Your task to perform on an android device: Check the weather Image 0: 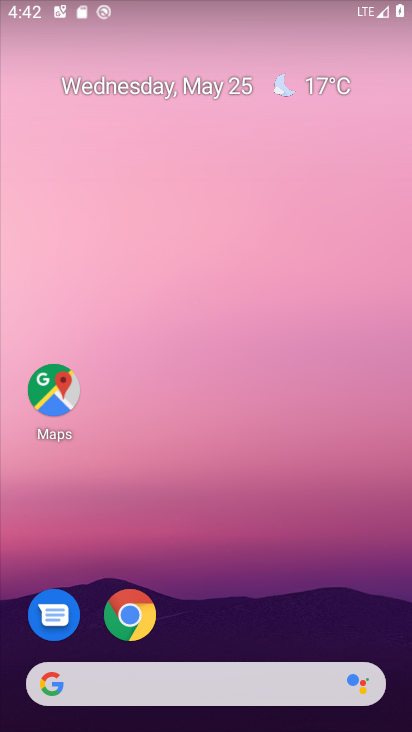
Step 0: click (326, 82)
Your task to perform on an android device: Check the weather Image 1: 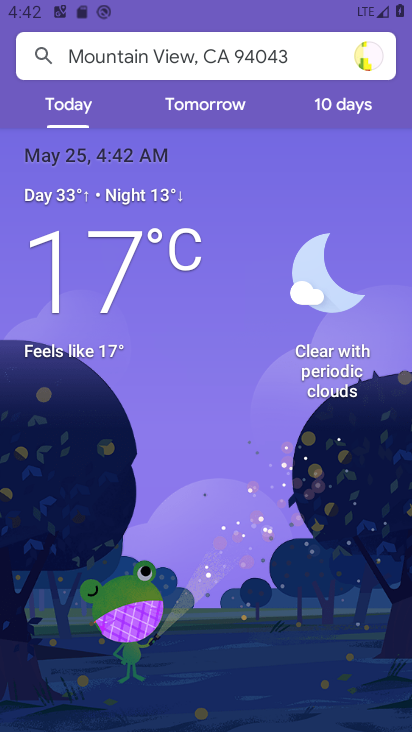
Step 1: task complete